Your task to perform on an android device: see sites visited before in the chrome app Image 0: 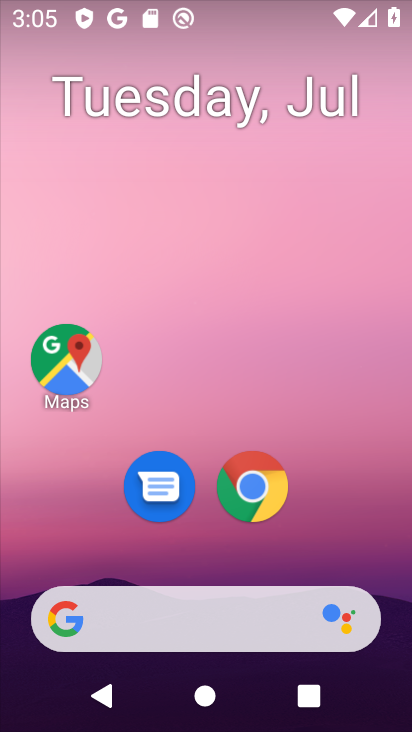
Step 0: click (259, 496)
Your task to perform on an android device: see sites visited before in the chrome app Image 1: 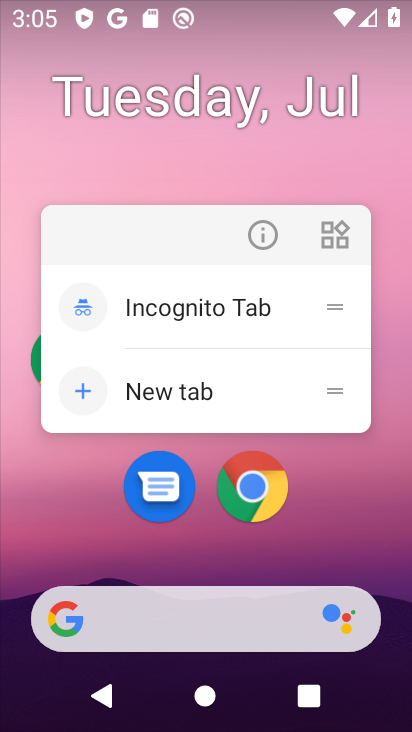
Step 1: click (259, 496)
Your task to perform on an android device: see sites visited before in the chrome app Image 2: 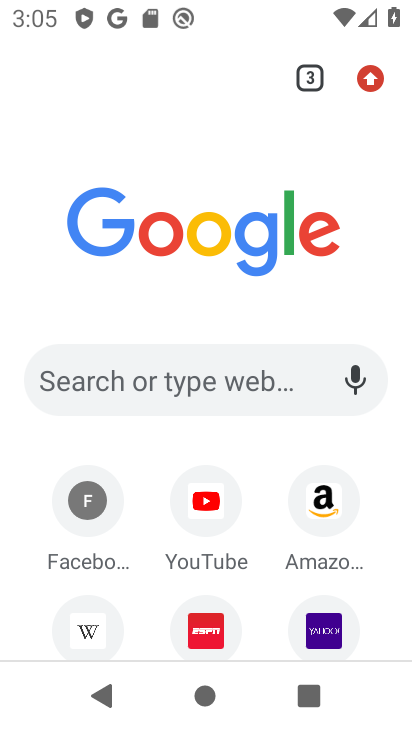
Step 2: task complete